Your task to perform on an android device: check data usage Image 0: 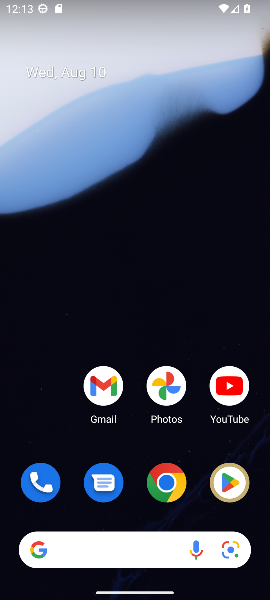
Step 0: drag from (61, 336) to (86, 36)
Your task to perform on an android device: check data usage Image 1: 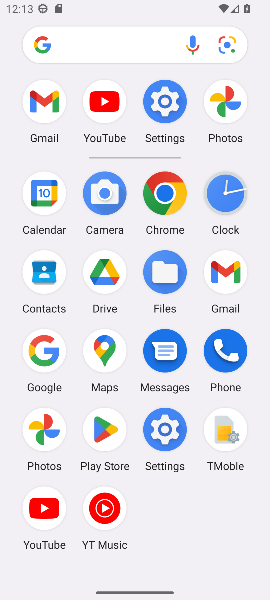
Step 1: click (174, 113)
Your task to perform on an android device: check data usage Image 2: 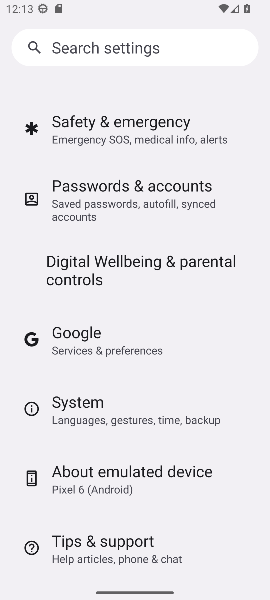
Step 2: task complete